Your task to perform on an android device: Toggle the flashlight Image 0: 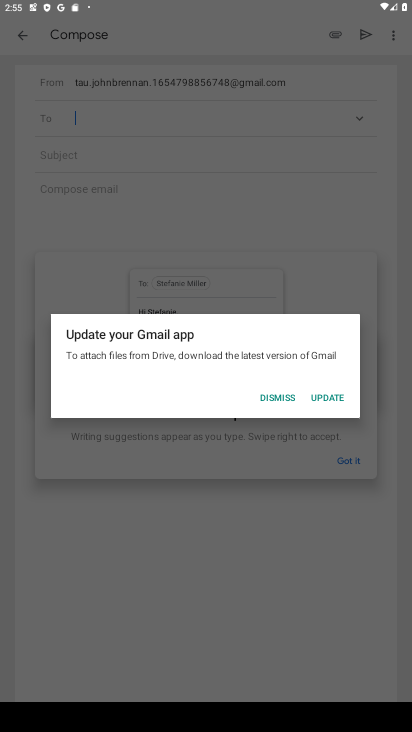
Step 0: press home button
Your task to perform on an android device: Toggle the flashlight Image 1: 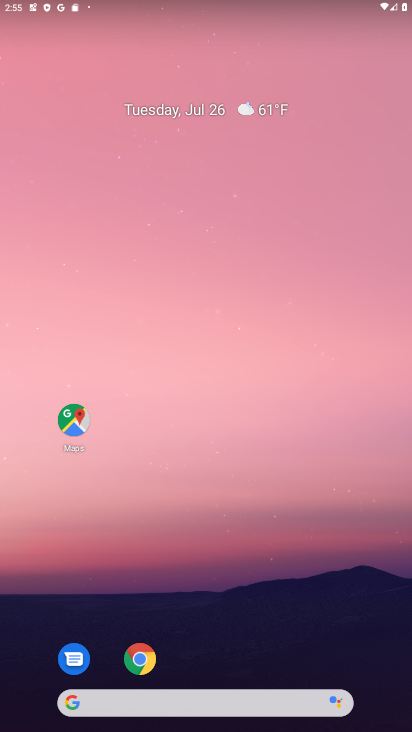
Step 1: drag from (395, 700) to (341, 189)
Your task to perform on an android device: Toggle the flashlight Image 2: 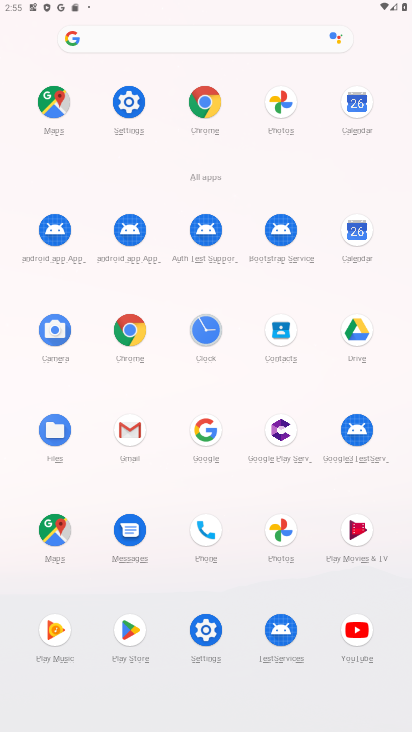
Step 2: click (201, 635)
Your task to perform on an android device: Toggle the flashlight Image 3: 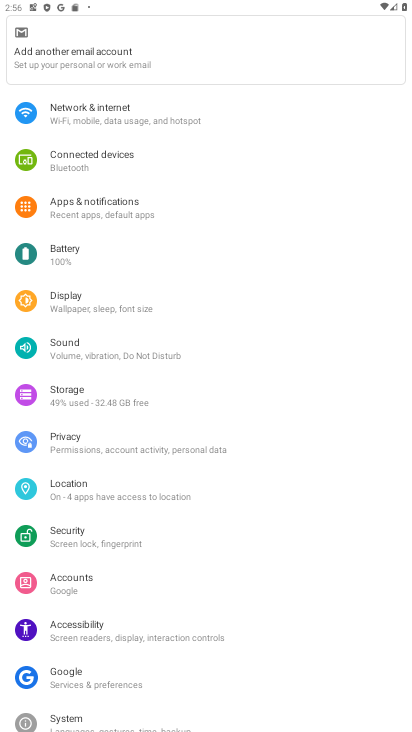
Step 3: click (74, 301)
Your task to perform on an android device: Toggle the flashlight Image 4: 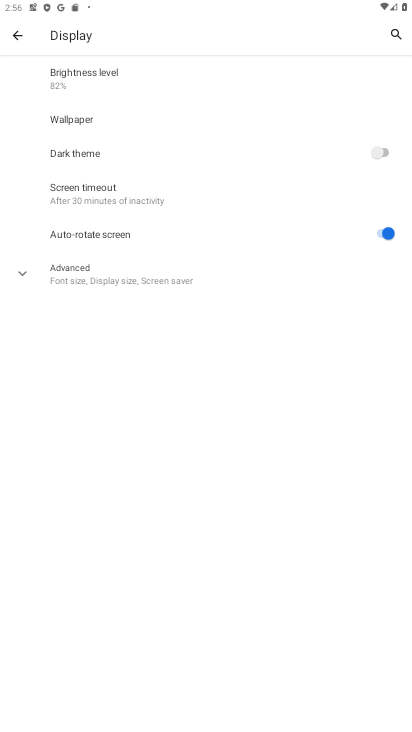
Step 4: task complete